Your task to perform on an android device: find which apps use the phone's location Image 0: 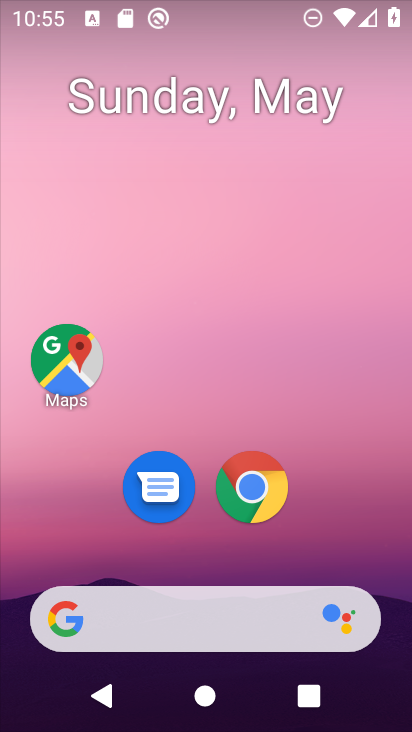
Step 0: click (219, 154)
Your task to perform on an android device: find which apps use the phone's location Image 1: 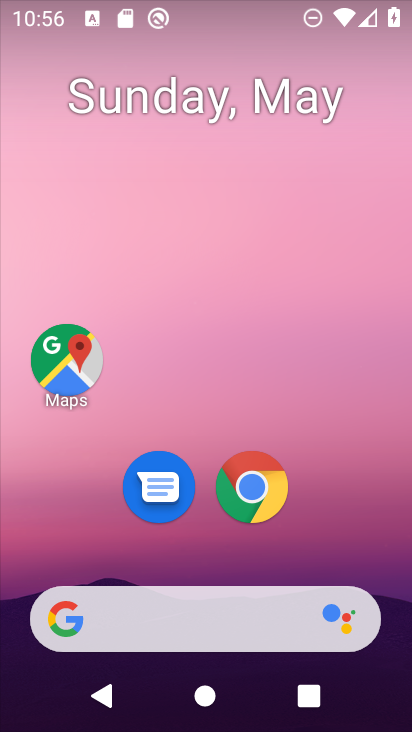
Step 1: drag from (199, 655) to (136, 122)
Your task to perform on an android device: find which apps use the phone's location Image 2: 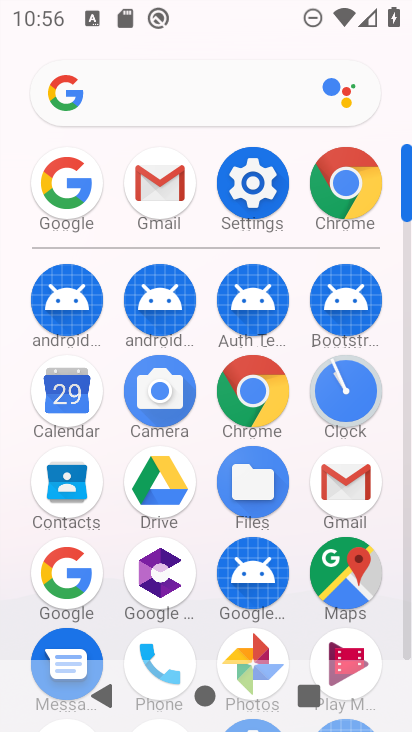
Step 2: click (251, 198)
Your task to perform on an android device: find which apps use the phone's location Image 3: 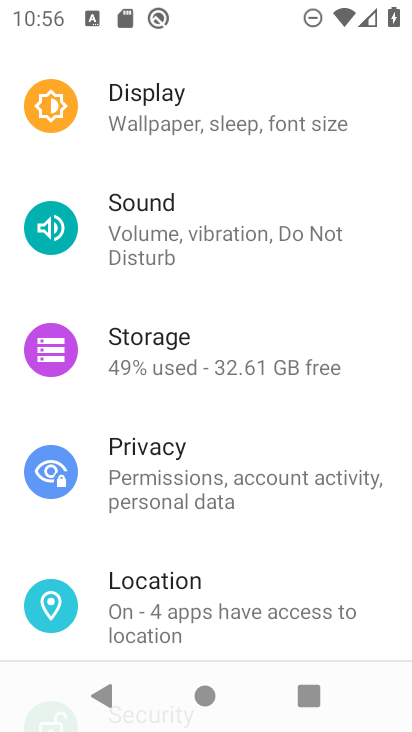
Step 3: click (261, 598)
Your task to perform on an android device: find which apps use the phone's location Image 4: 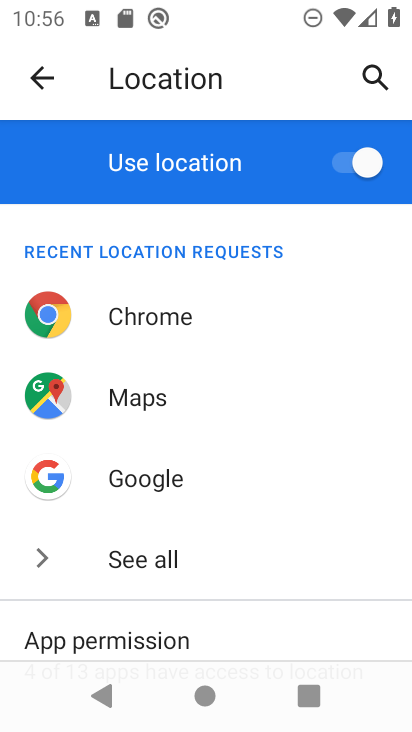
Step 4: drag from (245, 601) to (217, 404)
Your task to perform on an android device: find which apps use the phone's location Image 5: 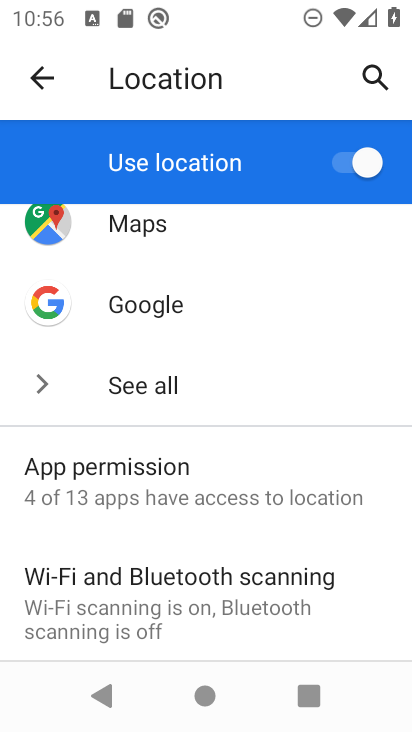
Step 5: click (215, 502)
Your task to perform on an android device: find which apps use the phone's location Image 6: 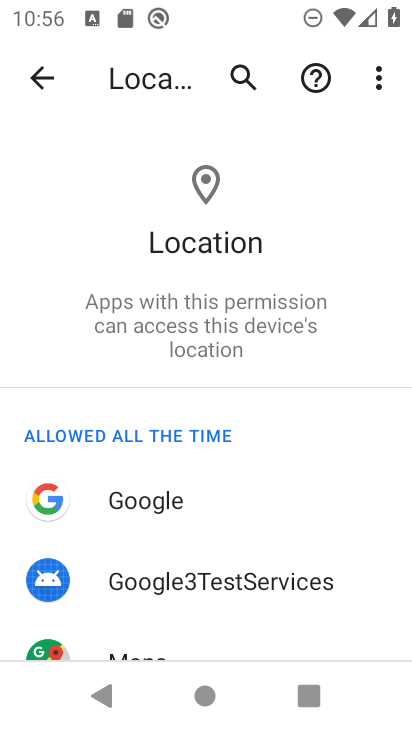
Step 6: task complete